Your task to perform on an android device: open device folders in google photos Image 0: 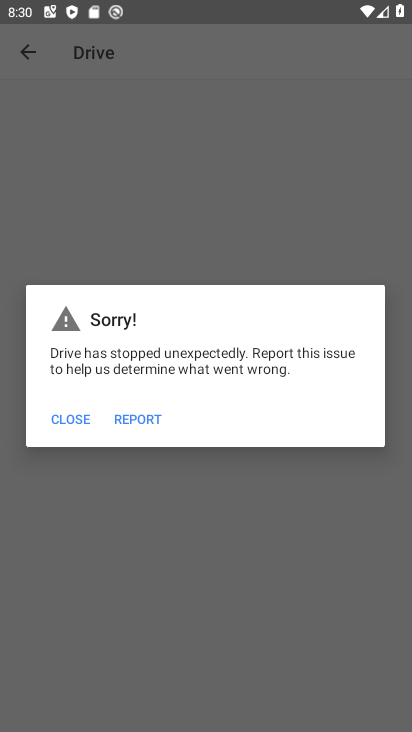
Step 0: press home button
Your task to perform on an android device: open device folders in google photos Image 1: 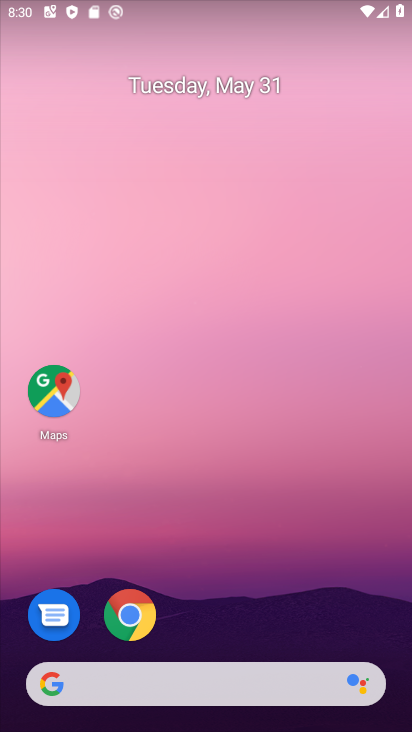
Step 1: drag from (375, 644) to (230, 105)
Your task to perform on an android device: open device folders in google photos Image 2: 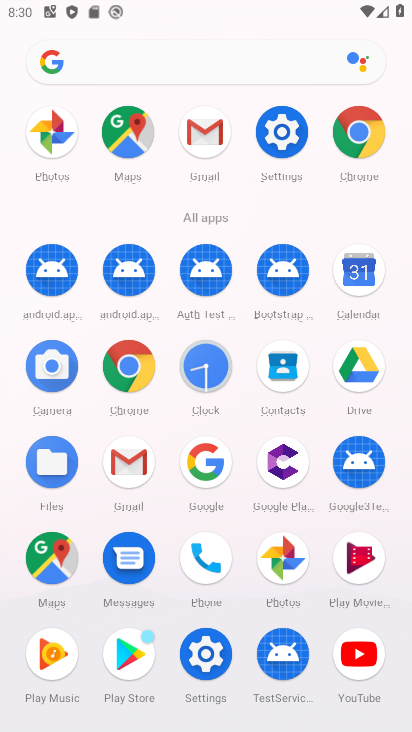
Step 2: click (282, 555)
Your task to perform on an android device: open device folders in google photos Image 3: 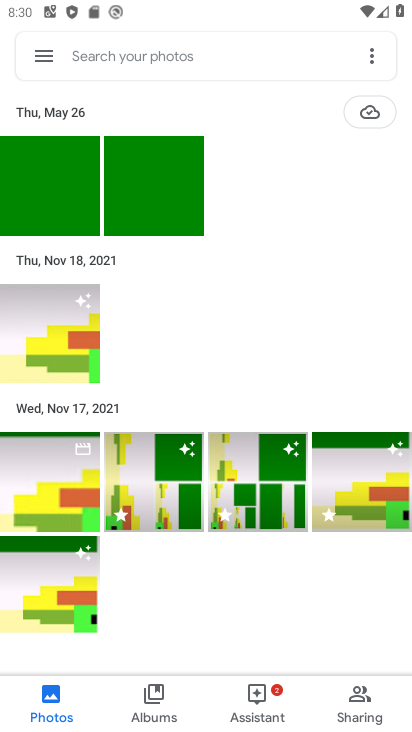
Step 3: click (41, 54)
Your task to perform on an android device: open device folders in google photos Image 4: 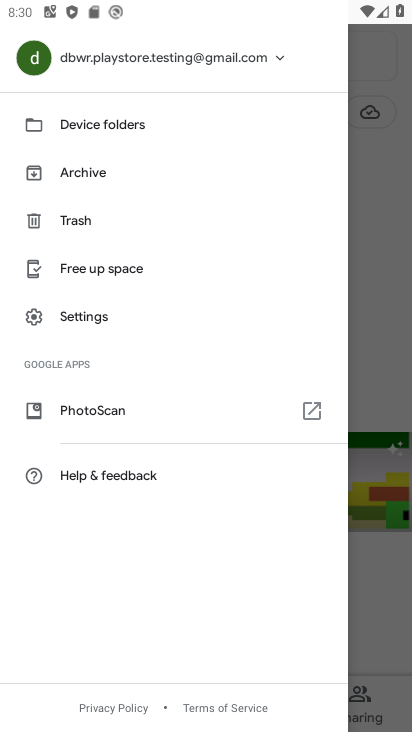
Step 4: click (98, 131)
Your task to perform on an android device: open device folders in google photos Image 5: 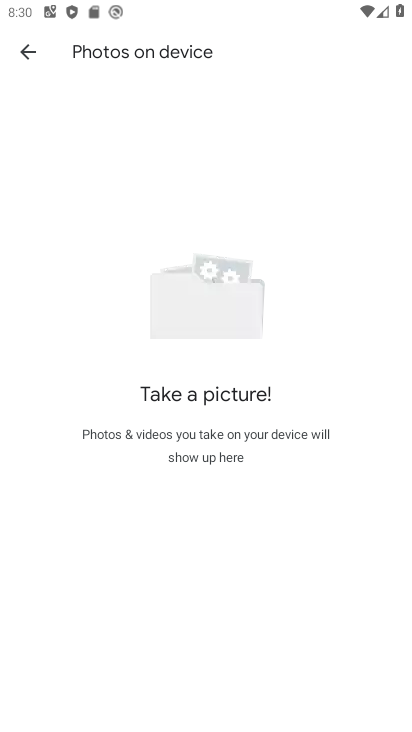
Step 5: task complete